Your task to perform on an android device: install app "Microsoft Excel" Image 0: 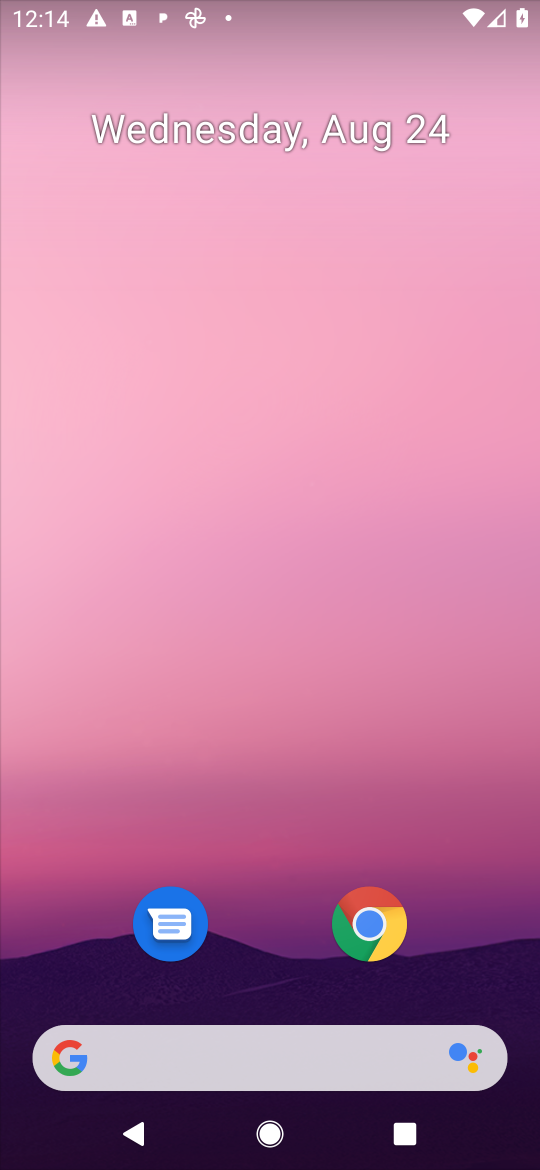
Step 0: press home button
Your task to perform on an android device: install app "Microsoft Excel" Image 1: 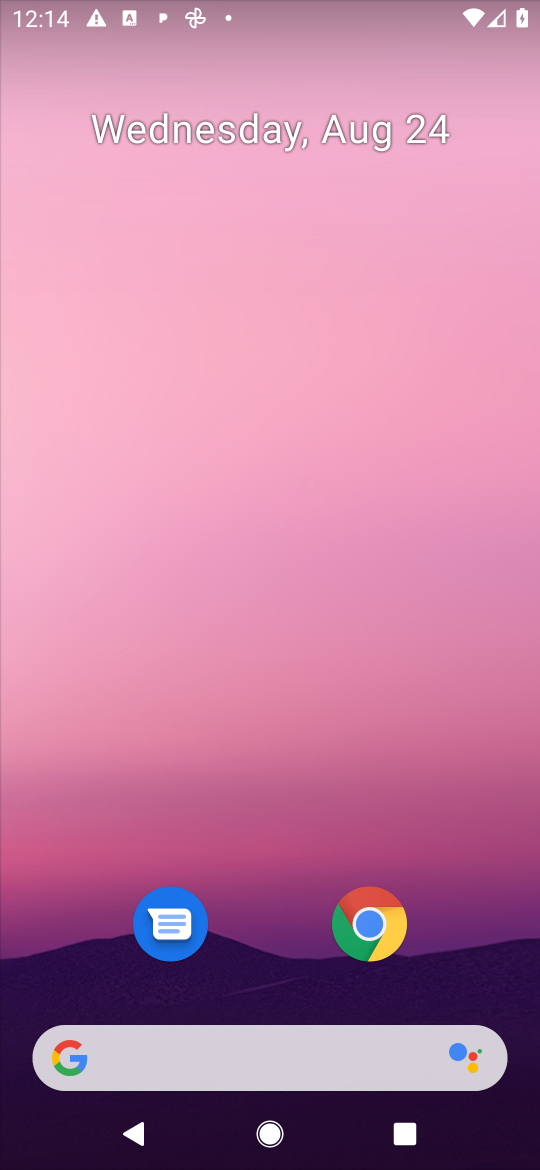
Step 1: drag from (481, 833) to (451, 132)
Your task to perform on an android device: install app "Microsoft Excel" Image 2: 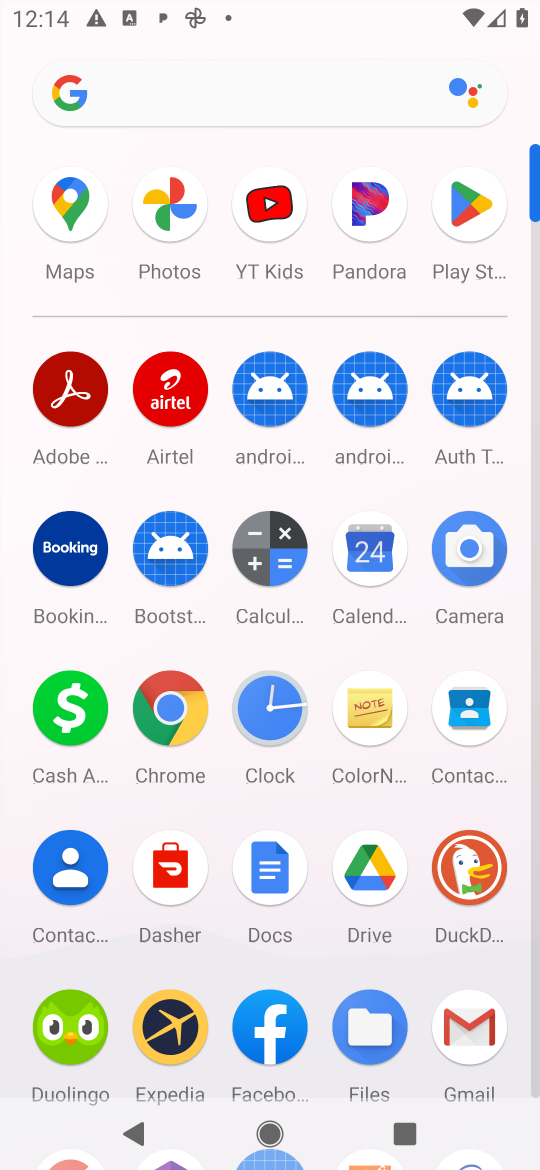
Step 2: click (471, 219)
Your task to perform on an android device: install app "Microsoft Excel" Image 3: 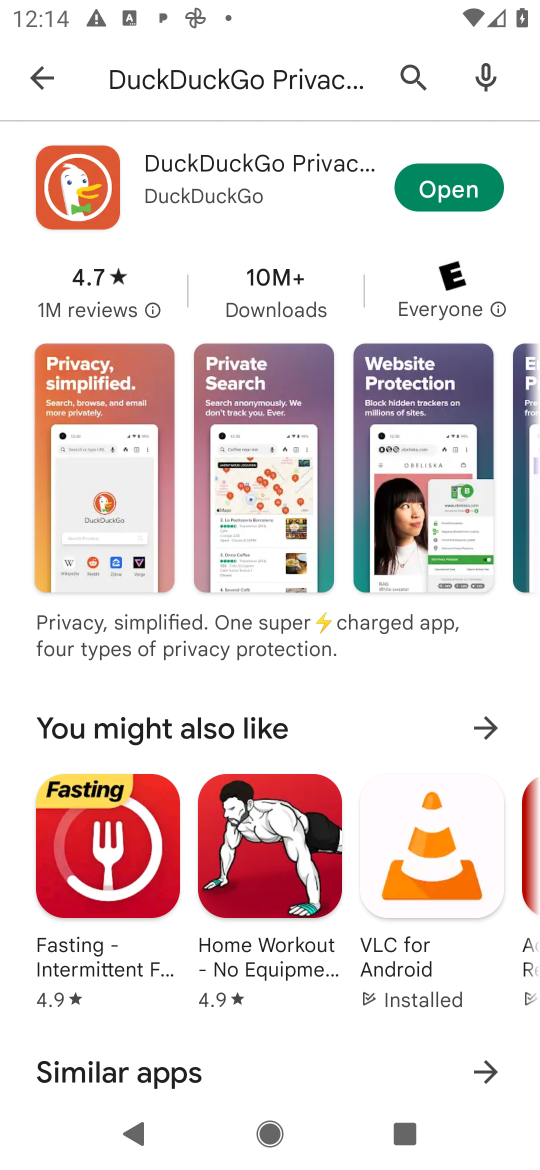
Step 3: press back button
Your task to perform on an android device: install app "Microsoft Excel" Image 4: 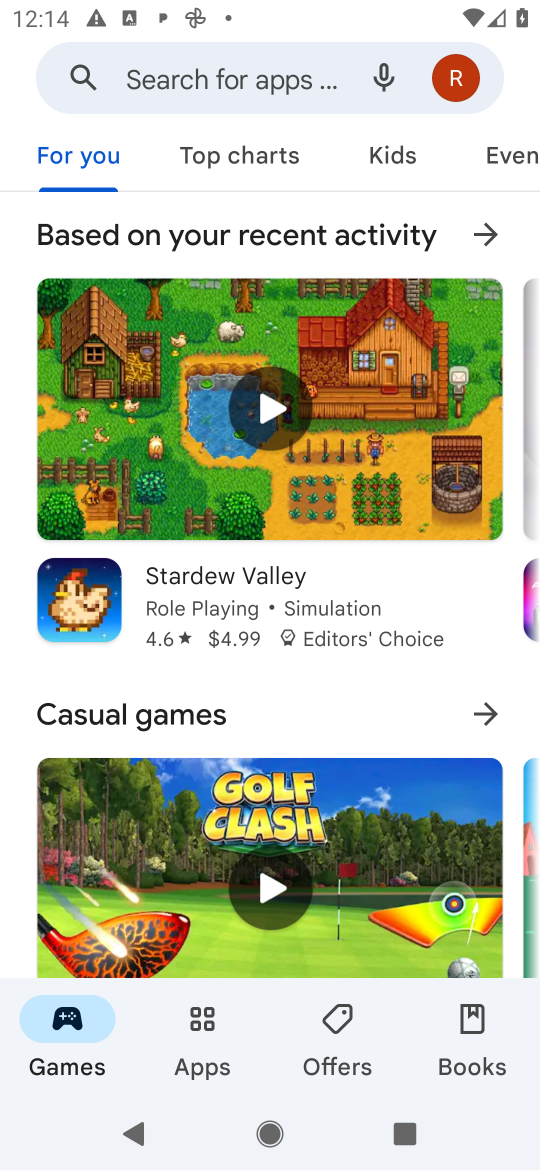
Step 4: click (238, 74)
Your task to perform on an android device: install app "Microsoft Excel" Image 5: 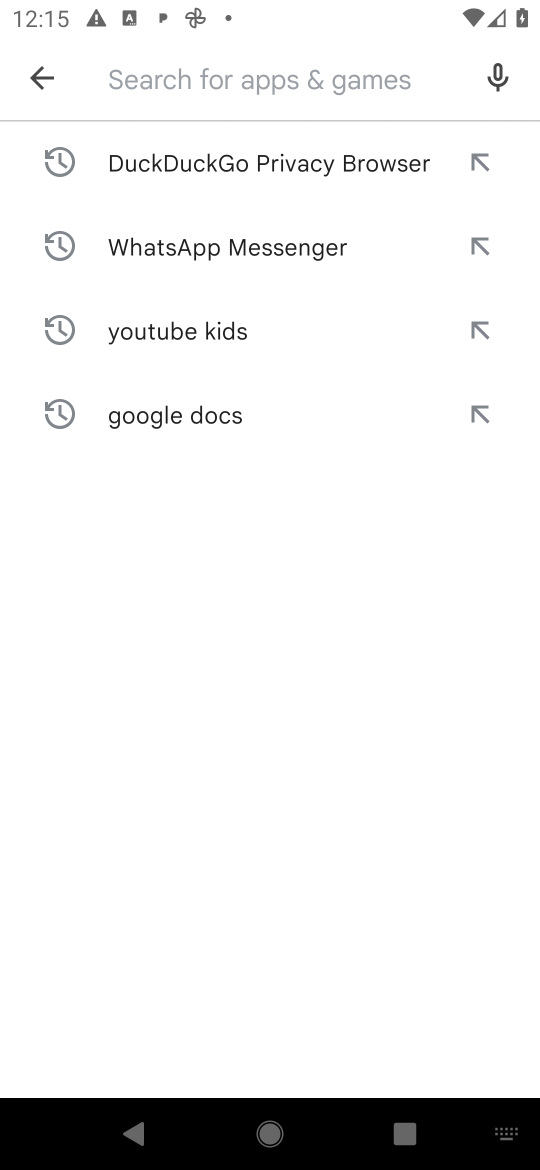
Step 5: type "Microsoft Excel"
Your task to perform on an android device: install app "Microsoft Excel" Image 6: 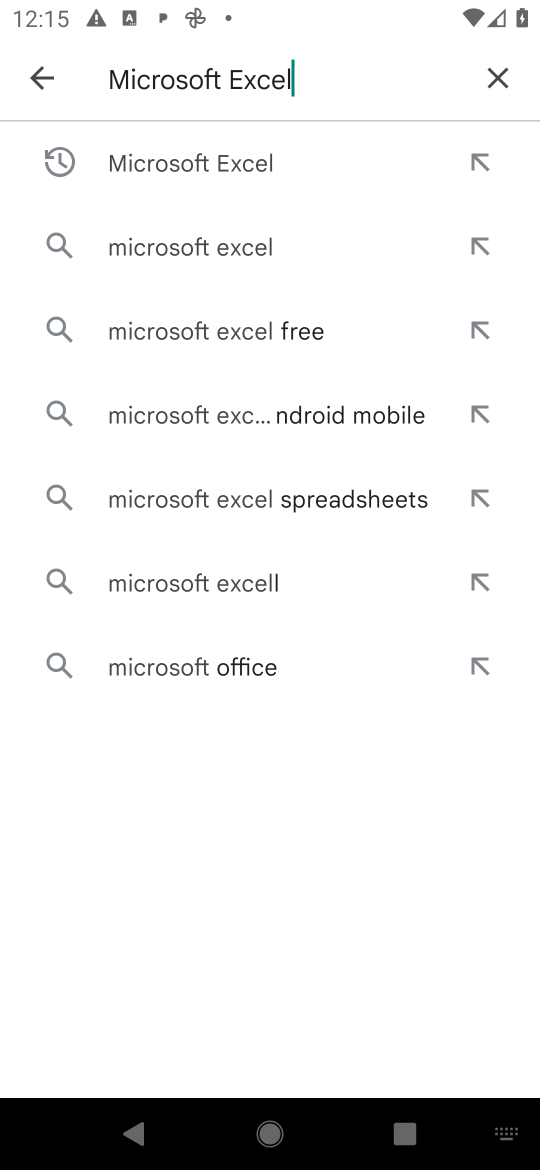
Step 6: press enter
Your task to perform on an android device: install app "Microsoft Excel" Image 7: 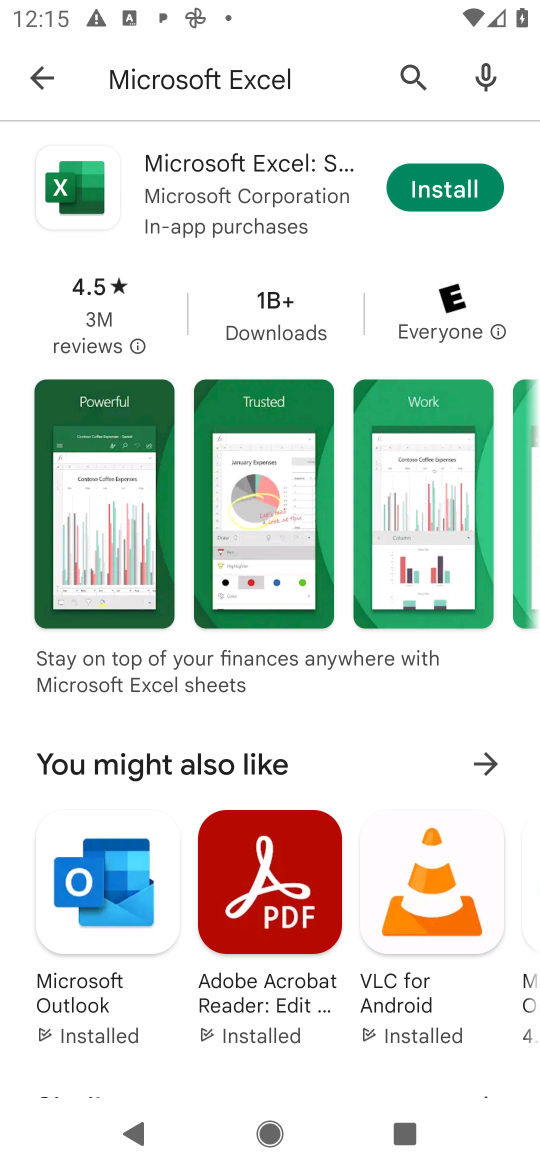
Step 7: click (448, 197)
Your task to perform on an android device: install app "Microsoft Excel" Image 8: 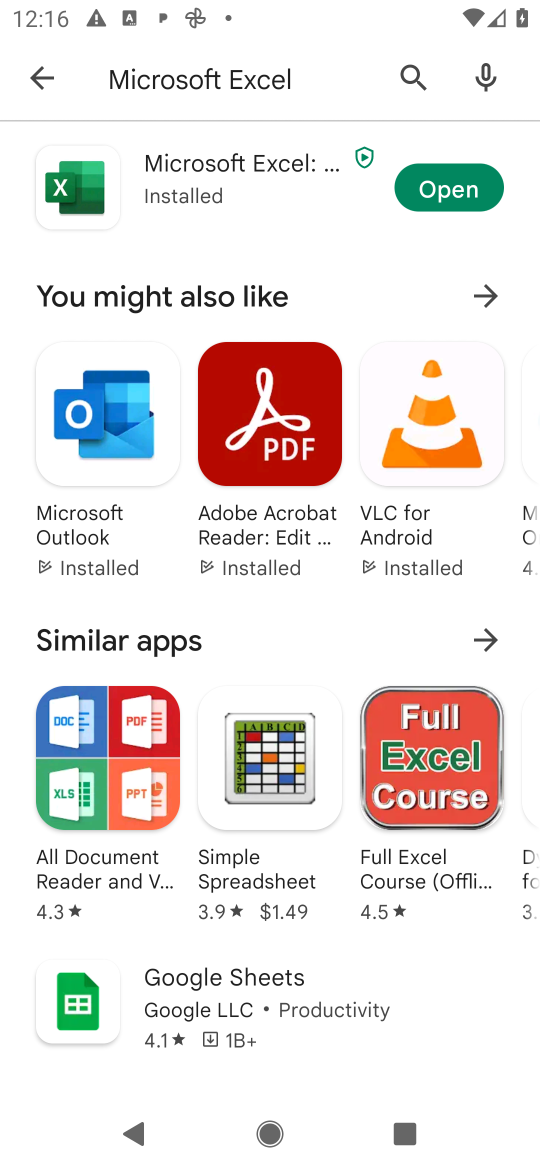
Step 8: task complete